Your task to perform on an android device: uninstall "Spotify: Music and Podcasts" Image 0: 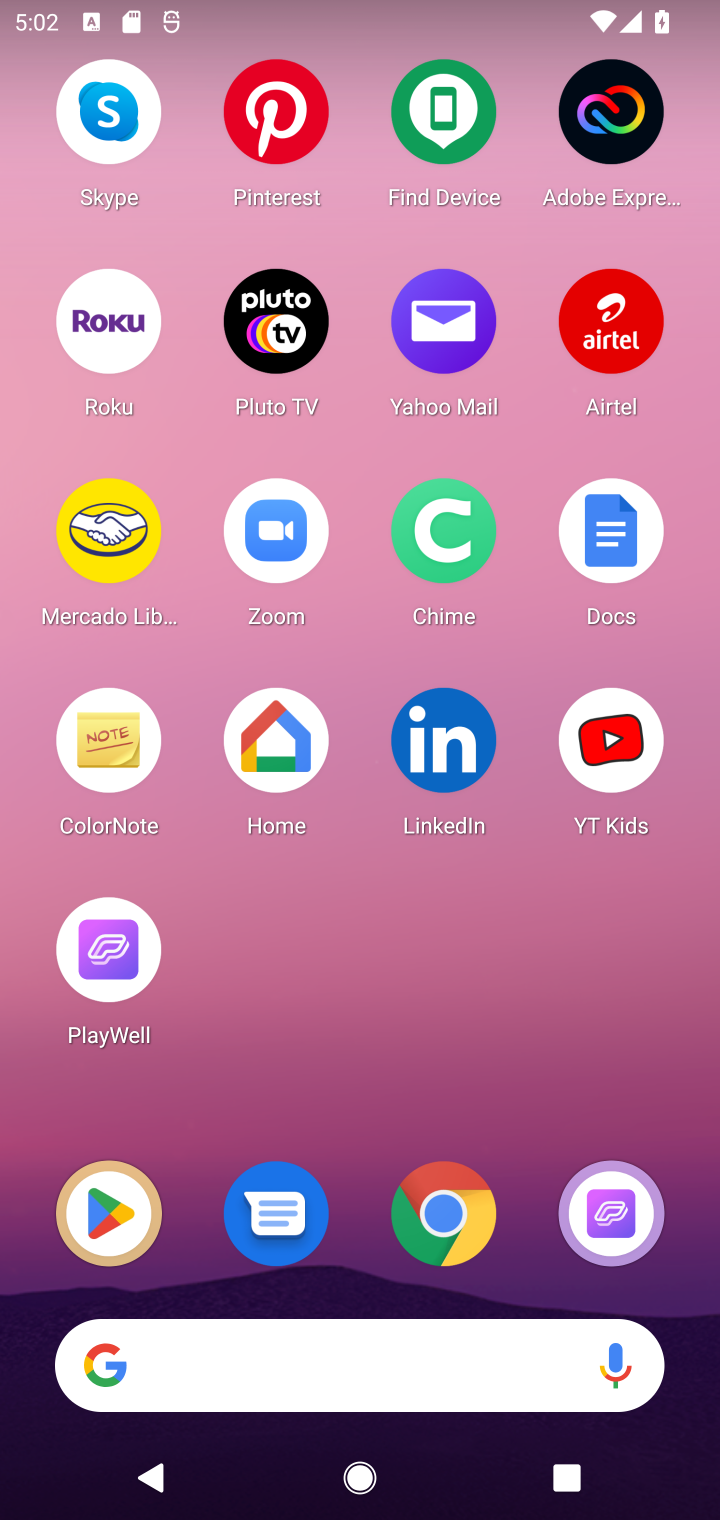
Step 0: drag from (577, 1032) to (421, 98)
Your task to perform on an android device: uninstall "Spotify: Music and Podcasts" Image 1: 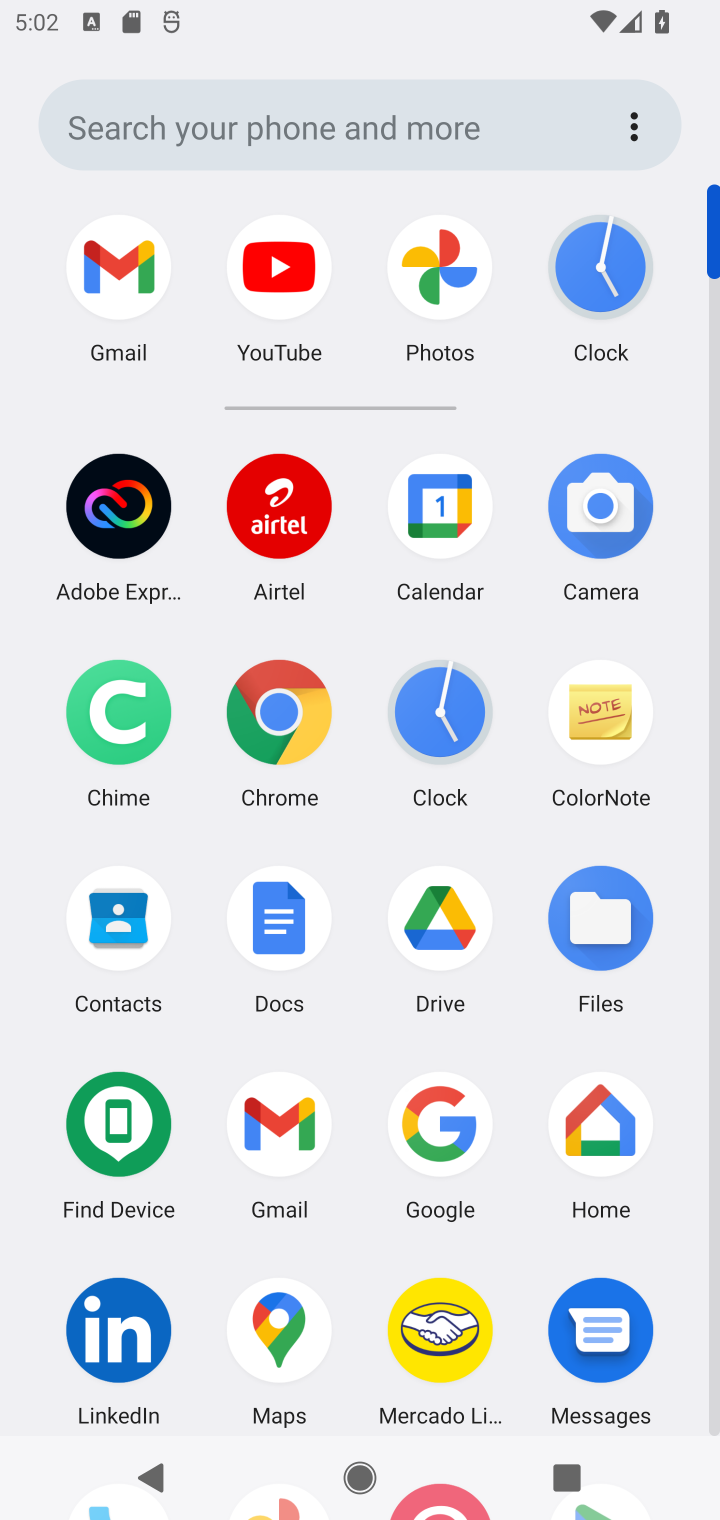
Step 1: drag from (512, 1214) to (518, 359)
Your task to perform on an android device: uninstall "Spotify: Music and Podcasts" Image 2: 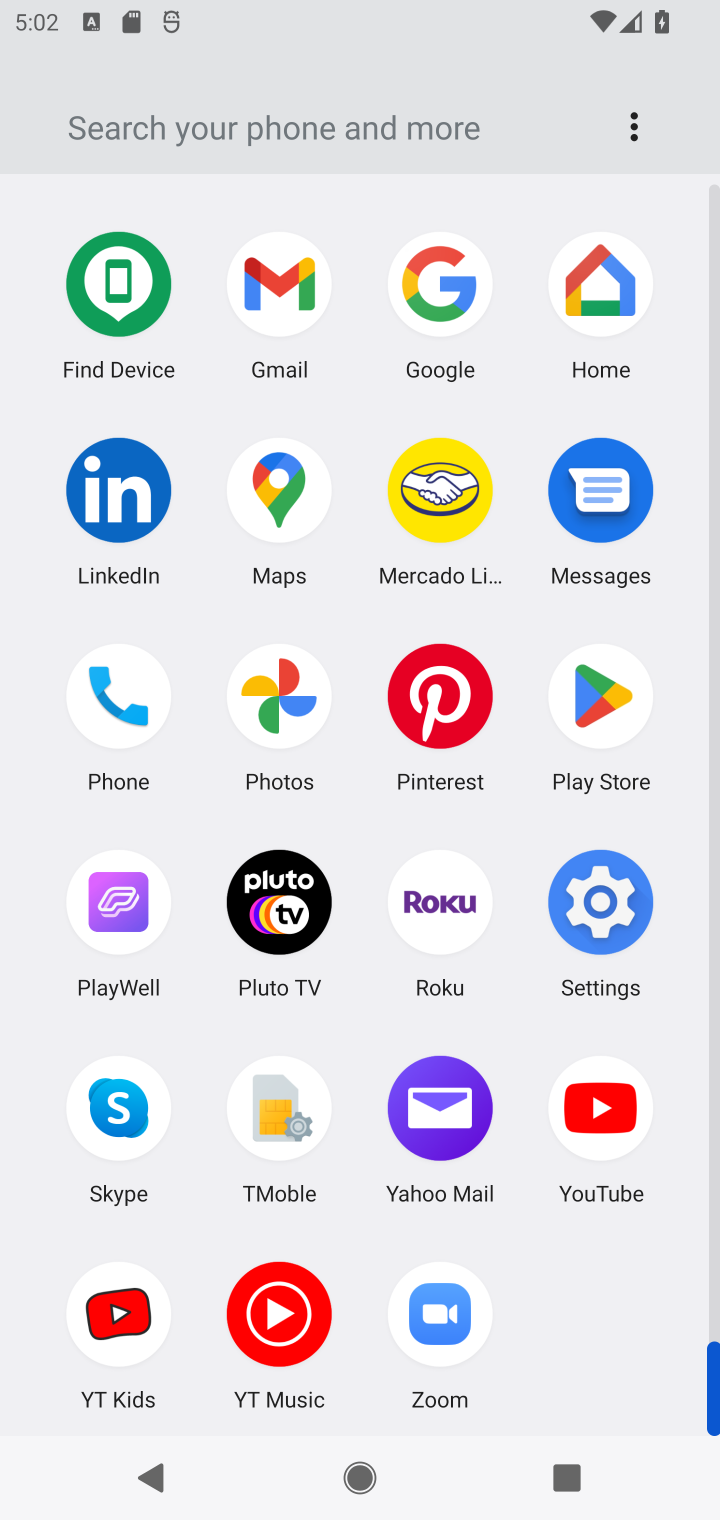
Step 2: click (586, 692)
Your task to perform on an android device: uninstall "Spotify: Music and Podcasts" Image 3: 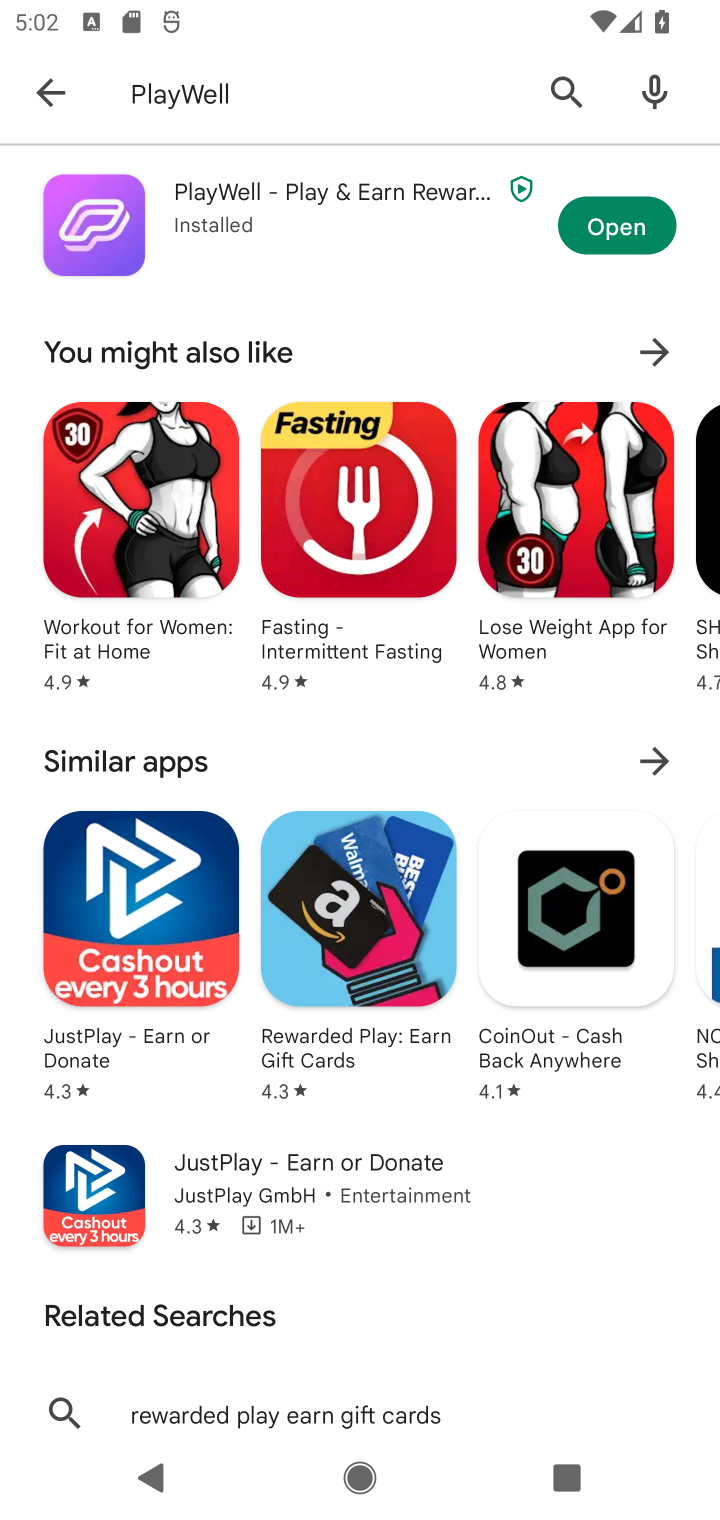
Step 3: click (447, 72)
Your task to perform on an android device: uninstall "Spotify: Music and Podcasts" Image 4: 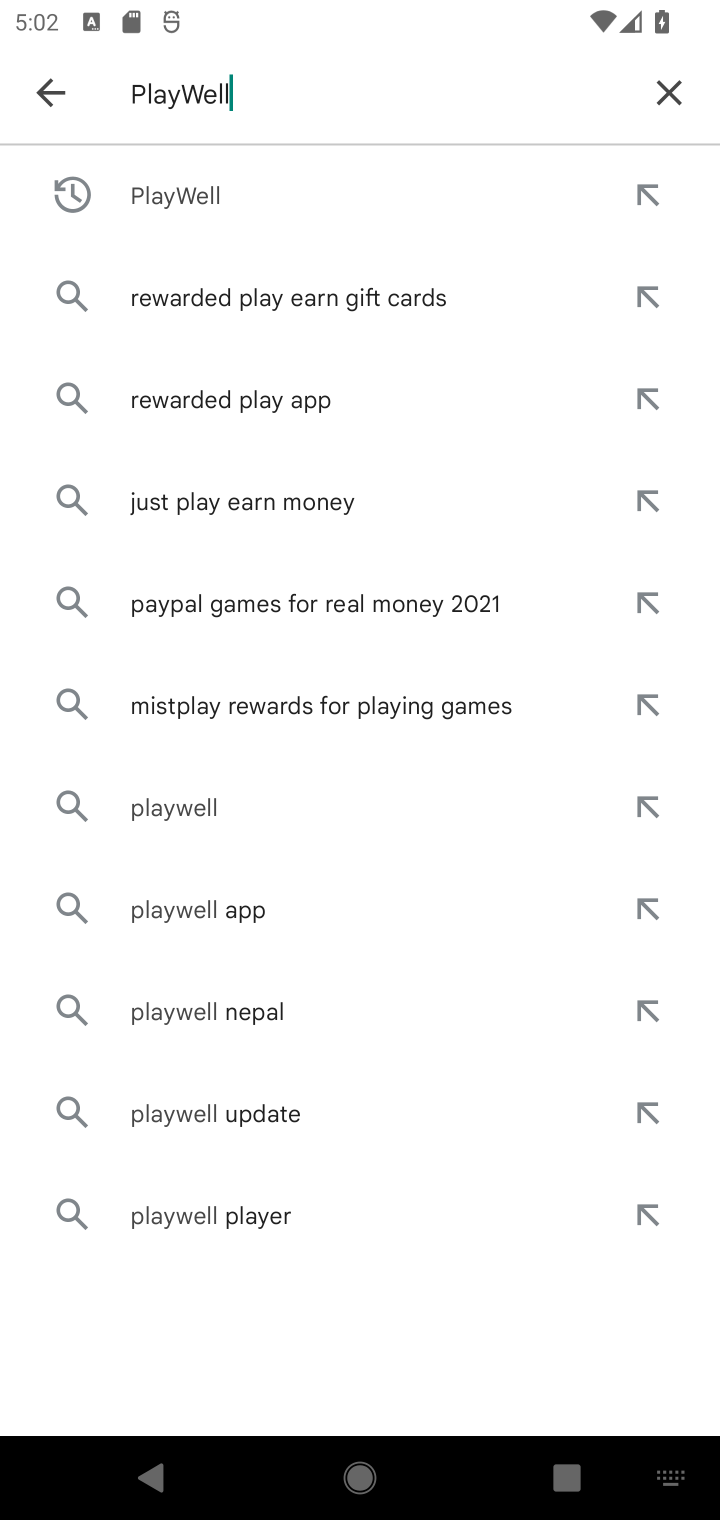
Step 4: click (686, 93)
Your task to perform on an android device: uninstall "Spotify: Music and Podcasts" Image 5: 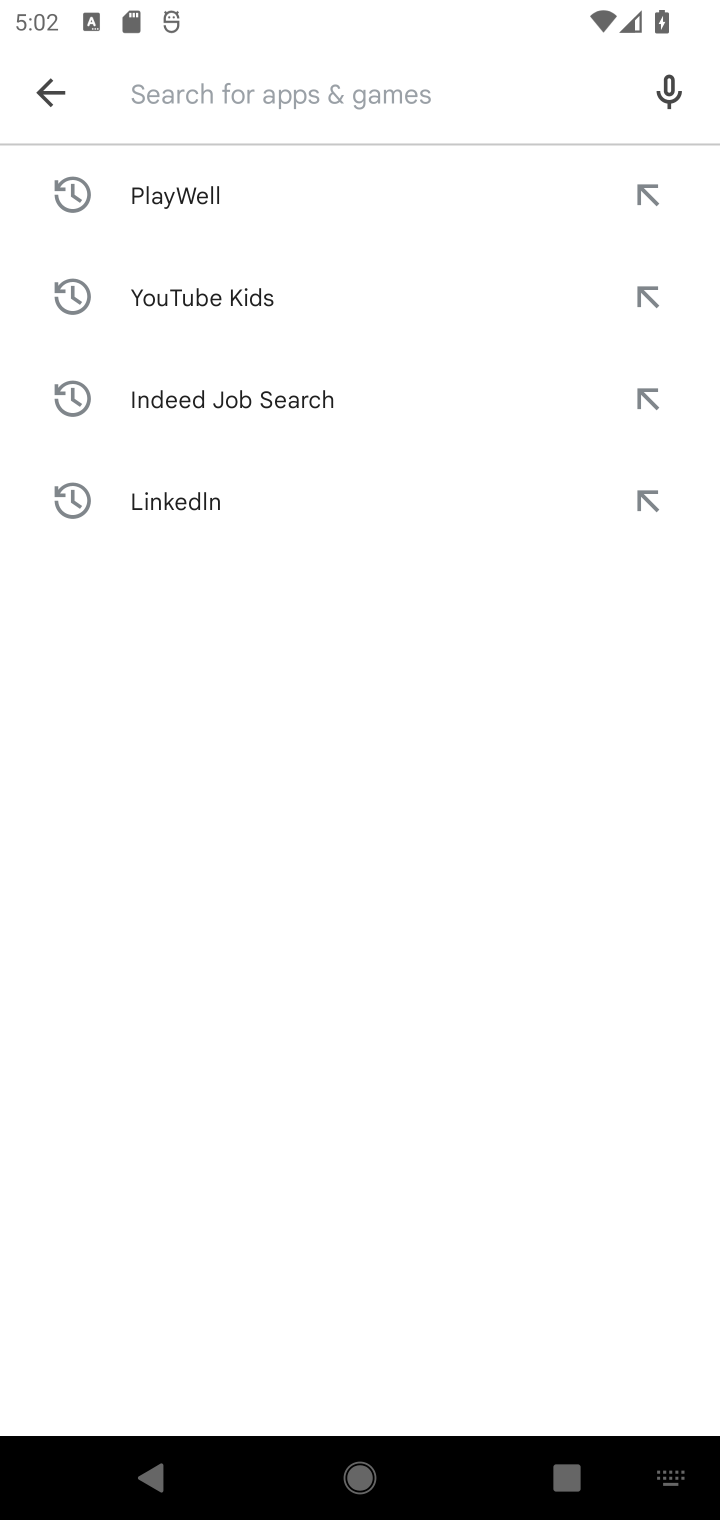
Step 5: type "Spotify: Music and Podcasts"
Your task to perform on an android device: uninstall "Spotify: Music and Podcasts" Image 6: 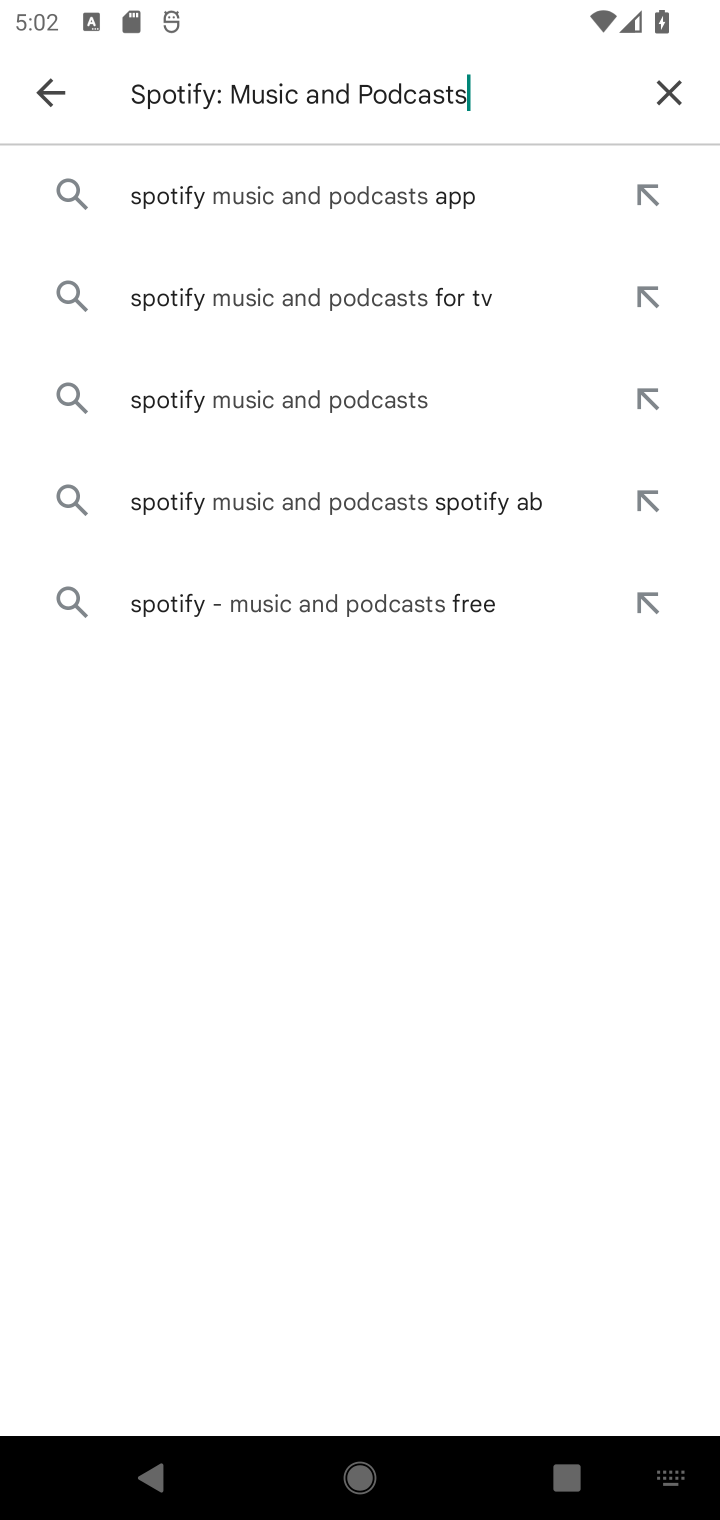
Step 6: press enter
Your task to perform on an android device: uninstall "Spotify: Music and Podcasts" Image 7: 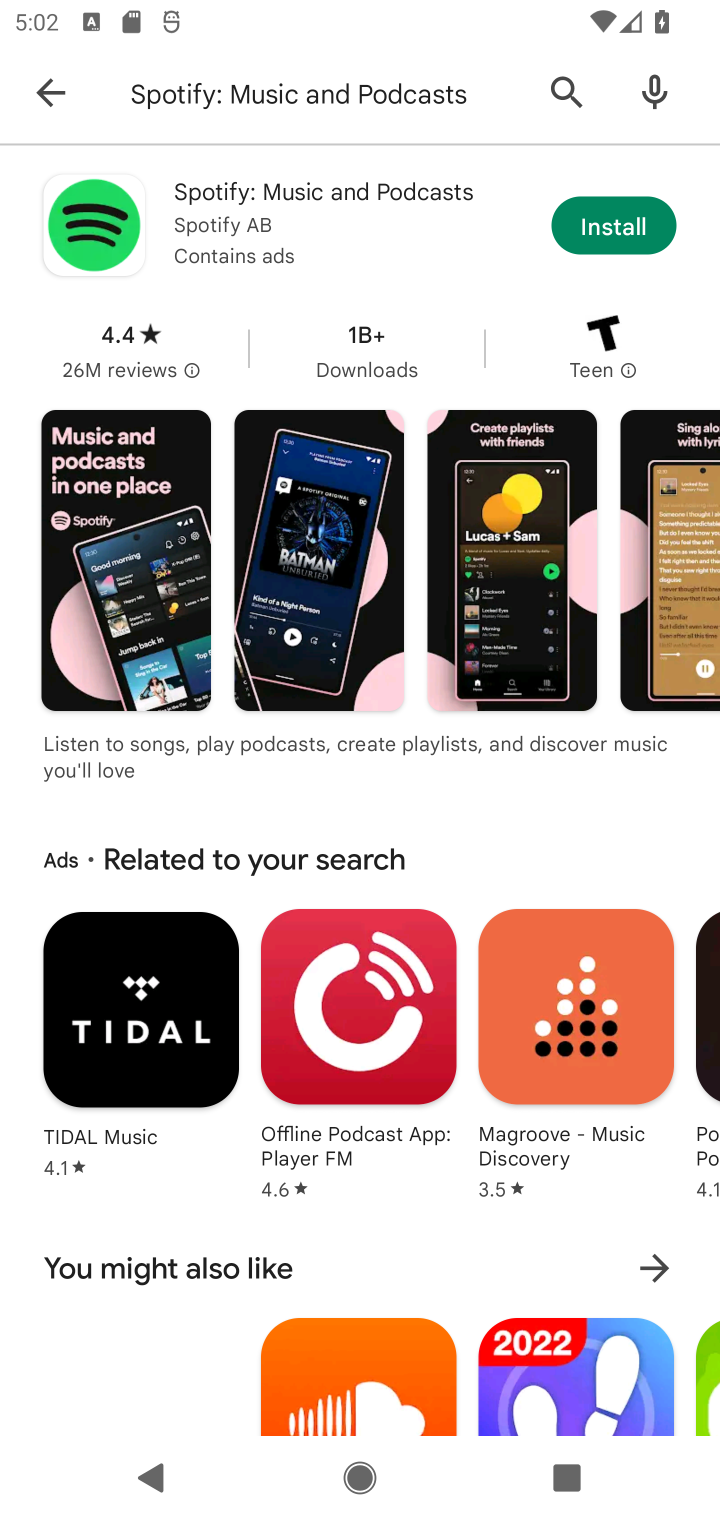
Step 7: click (358, 233)
Your task to perform on an android device: uninstall "Spotify: Music and Podcasts" Image 8: 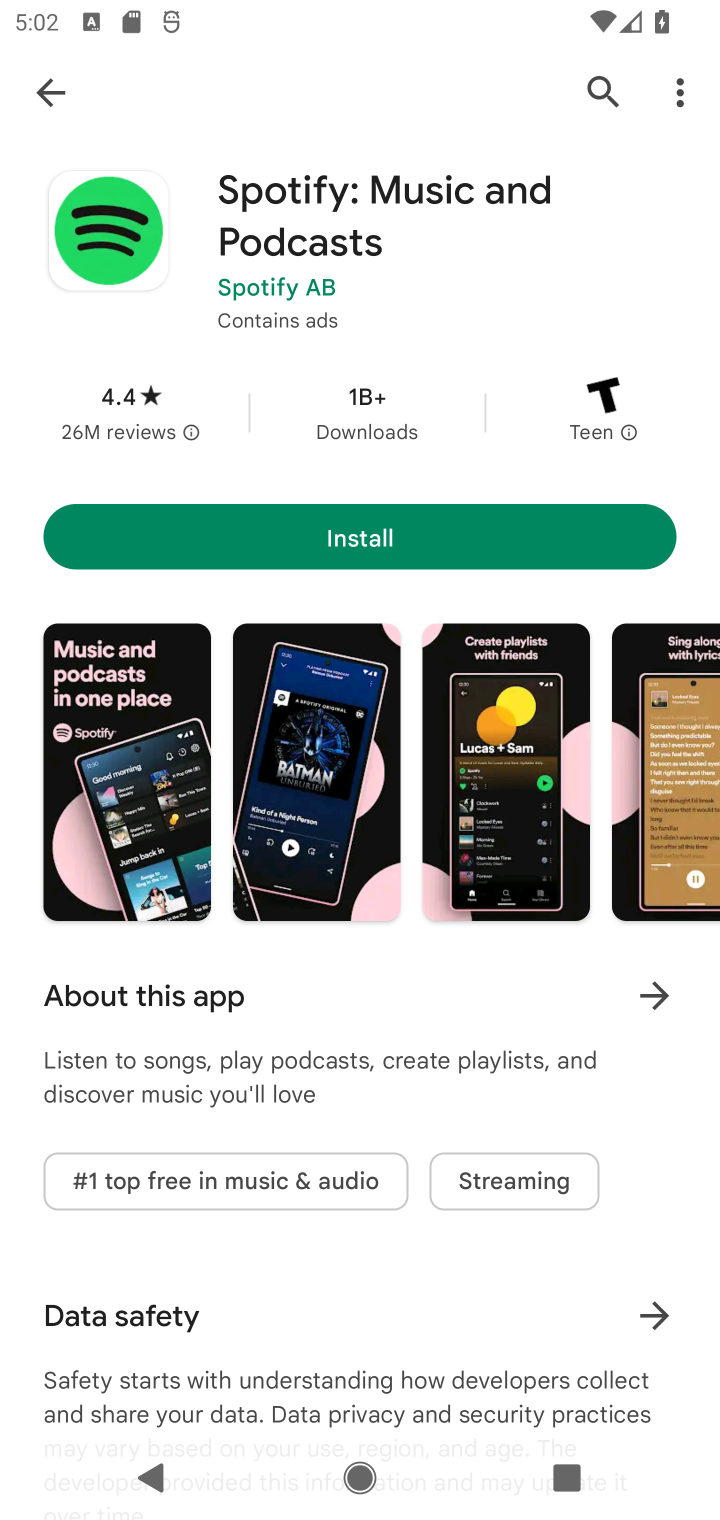
Step 8: task complete